Your task to perform on an android device: turn off improve location accuracy Image 0: 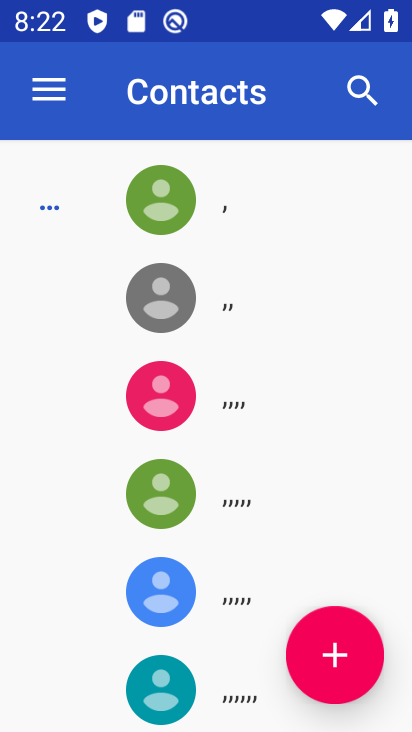
Step 0: press home button
Your task to perform on an android device: turn off improve location accuracy Image 1: 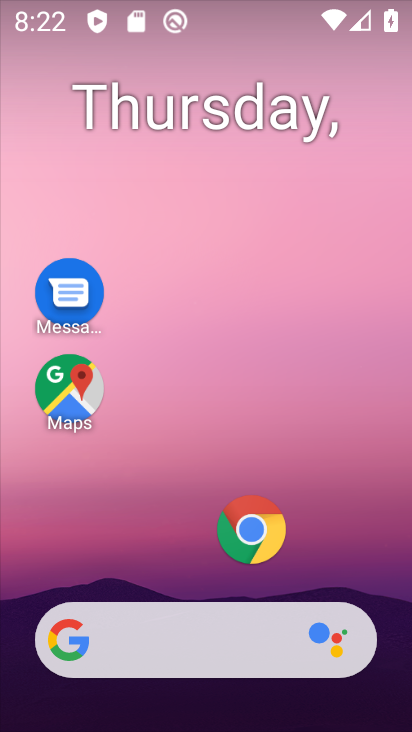
Step 1: drag from (183, 545) to (257, 187)
Your task to perform on an android device: turn off improve location accuracy Image 2: 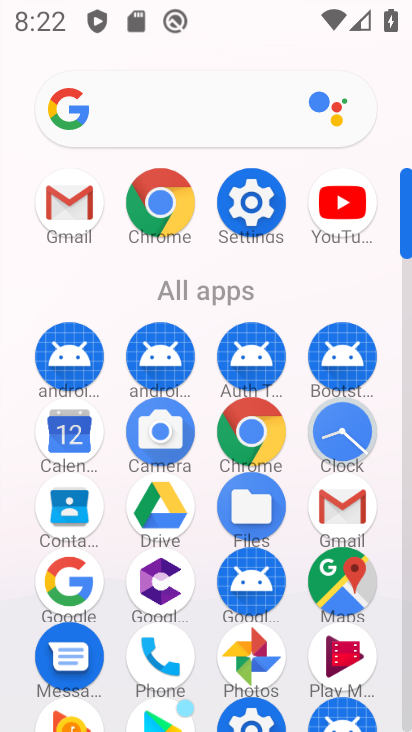
Step 2: click (248, 209)
Your task to perform on an android device: turn off improve location accuracy Image 3: 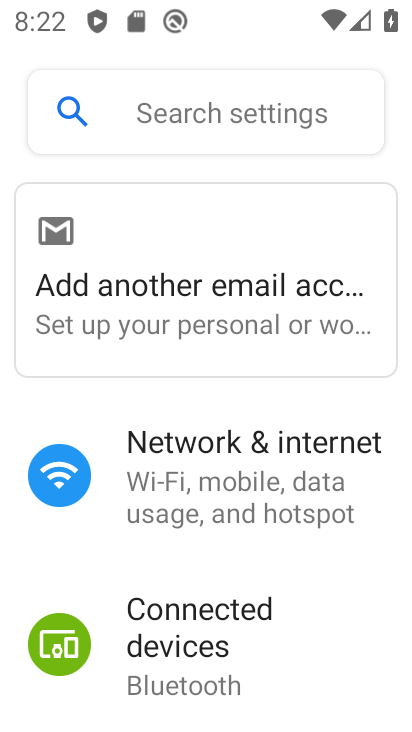
Step 3: drag from (153, 669) to (252, 372)
Your task to perform on an android device: turn off improve location accuracy Image 4: 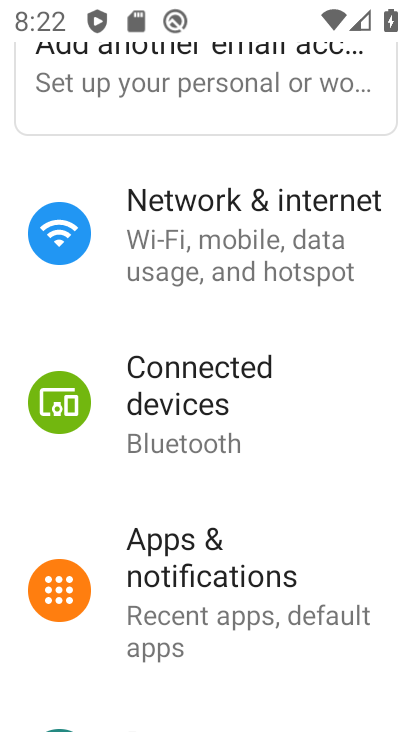
Step 4: drag from (214, 589) to (290, 184)
Your task to perform on an android device: turn off improve location accuracy Image 5: 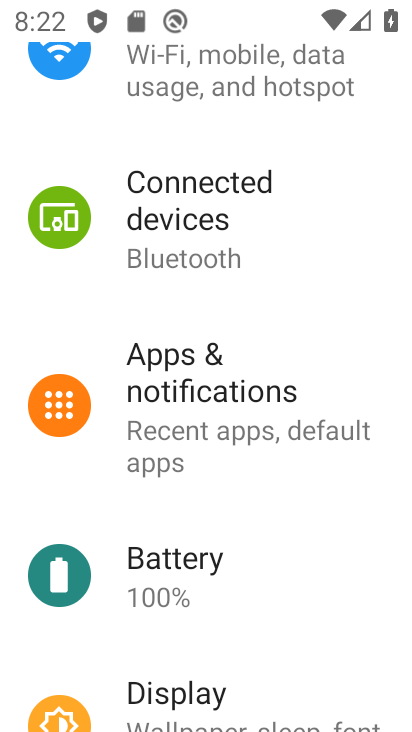
Step 5: drag from (190, 547) to (237, 298)
Your task to perform on an android device: turn off improve location accuracy Image 6: 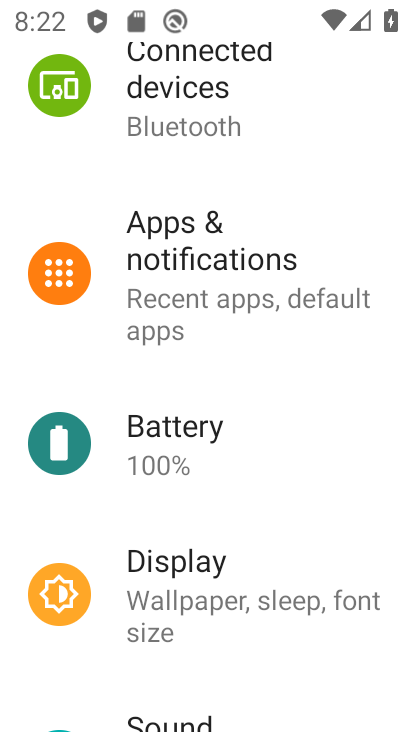
Step 6: drag from (174, 664) to (229, 177)
Your task to perform on an android device: turn off improve location accuracy Image 7: 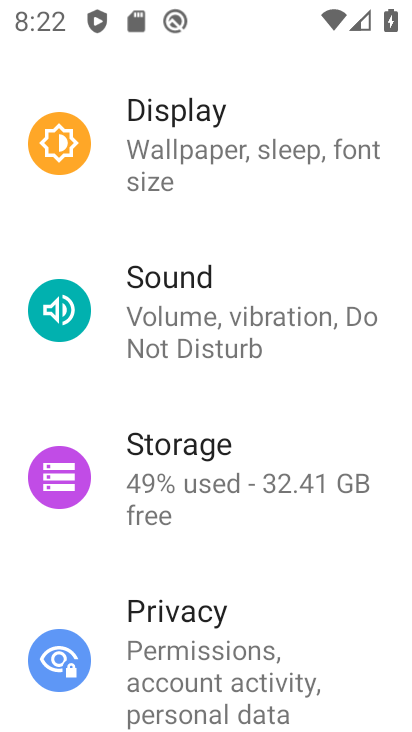
Step 7: drag from (231, 599) to (276, 138)
Your task to perform on an android device: turn off improve location accuracy Image 8: 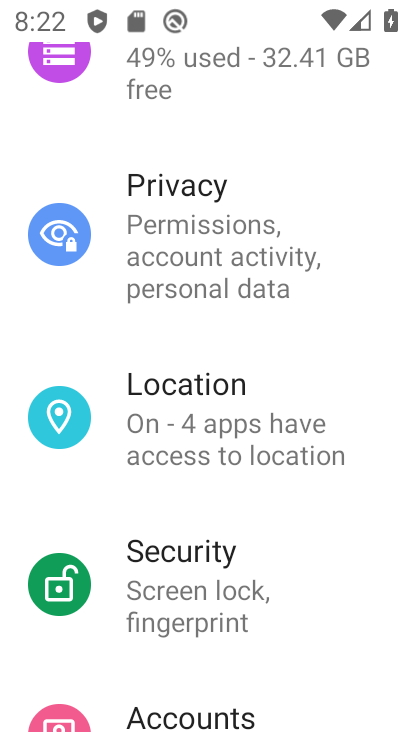
Step 8: click (195, 403)
Your task to perform on an android device: turn off improve location accuracy Image 9: 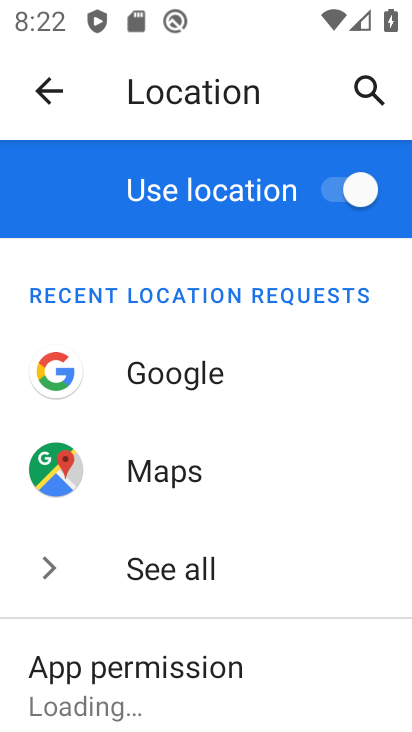
Step 9: drag from (121, 652) to (180, 179)
Your task to perform on an android device: turn off improve location accuracy Image 10: 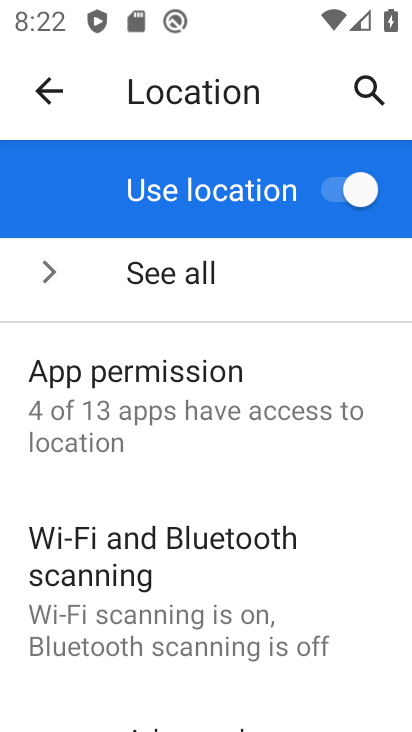
Step 10: drag from (165, 579) to (221, 207)
Your task to perform on an android device: turn off improve location accuracy Image 11: 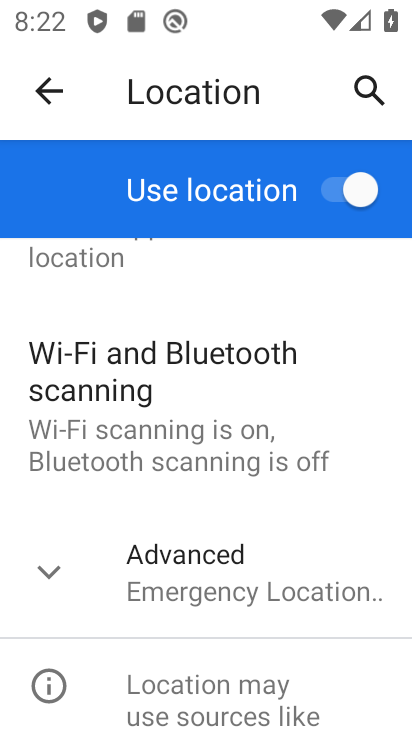
Step 11: click (137, 587)
Your task to perform on an android device: turn off improve location accuracy Image 12: 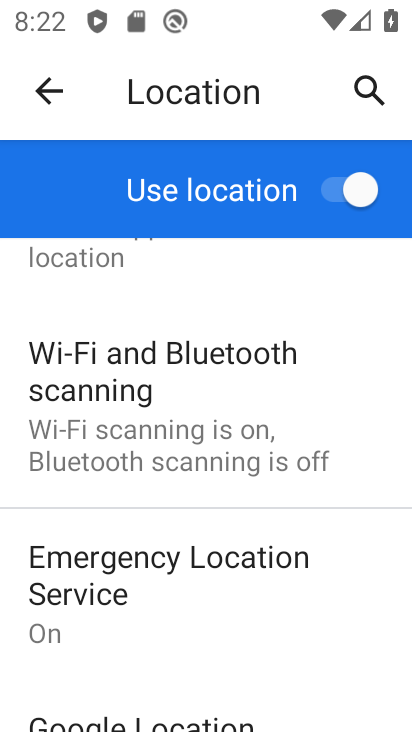
Step 12: drag from (137, 587) to (210, 281)
Your task to perform on an android device: turn off improve location accuracy Image 13: 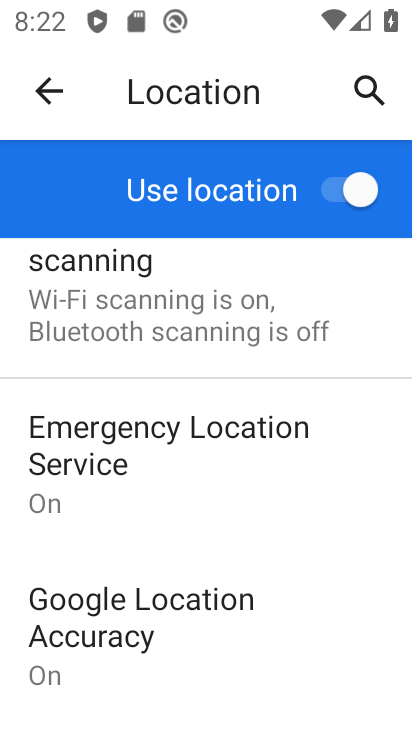
Step 13: click (211, 591)
Your task to perform on an android device: turn off improve location accuracy Image 14: 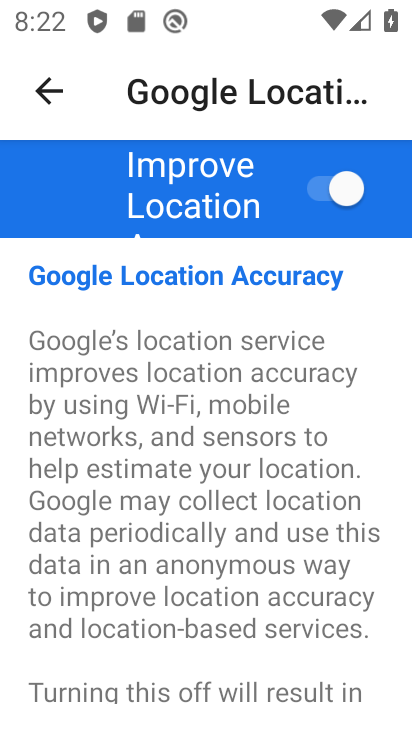
Step 14: click (320, 192)
Your task to perform on an android device: turn off improve location accuracy Image 15: 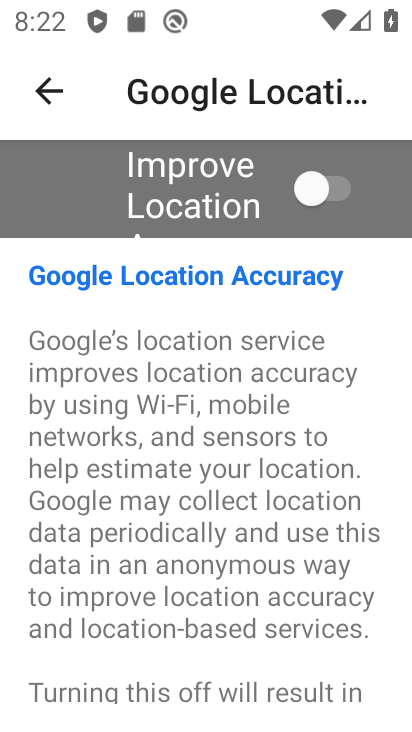
Step 15: task complete